Your task to perform on an android device: Open Google Maps and go to "Timeline" Image 0: 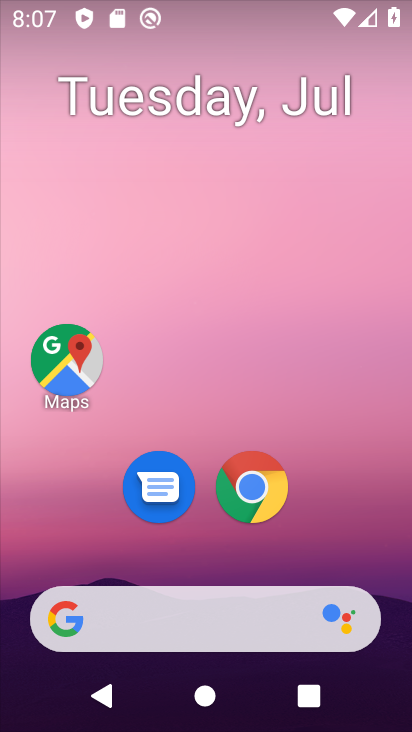
Step 0: click (60, 379)
Your task to perform on an android device: Open Google Maps and go to "Timeline" Image 1: 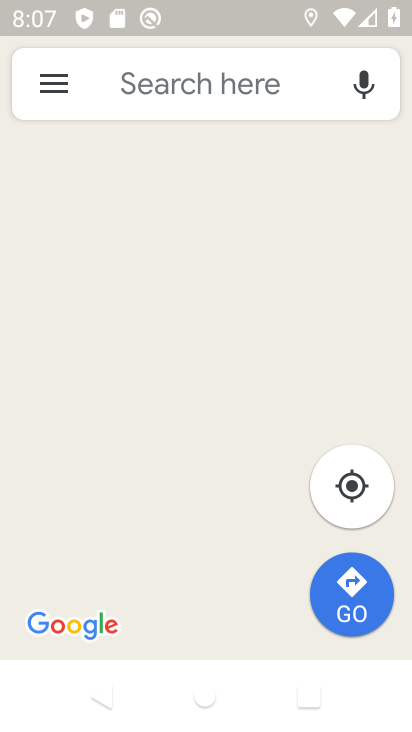
Step 1: click (40, 82)
Your task to perform on an android device: Open Google Maps and go to "Timeline" Image 2: 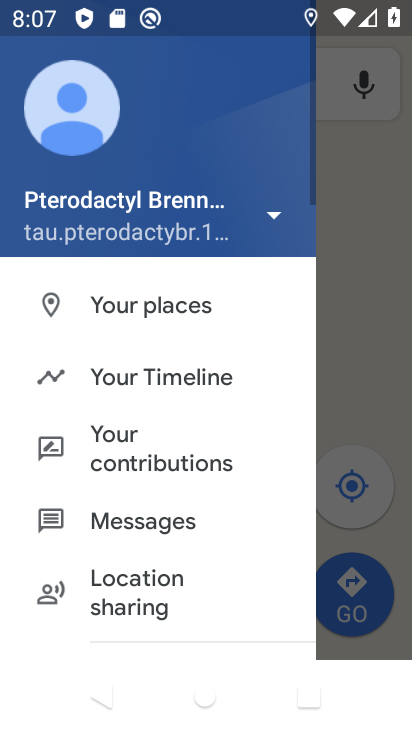
Step 2: click (218, 387)
Your task to perform on an android device: Open Google Maps and go to "Timeline" Image 3: 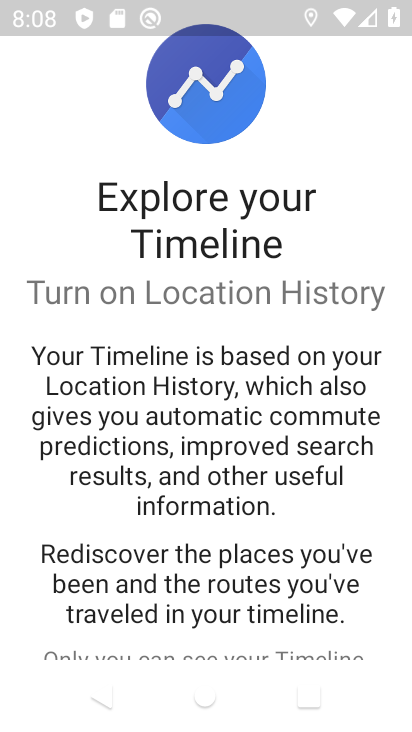
Step 3: drag from (141, 585) to (291, 96)
Your task to perform on an android device: Open Google Maps and go to "Timeline" Image 4: 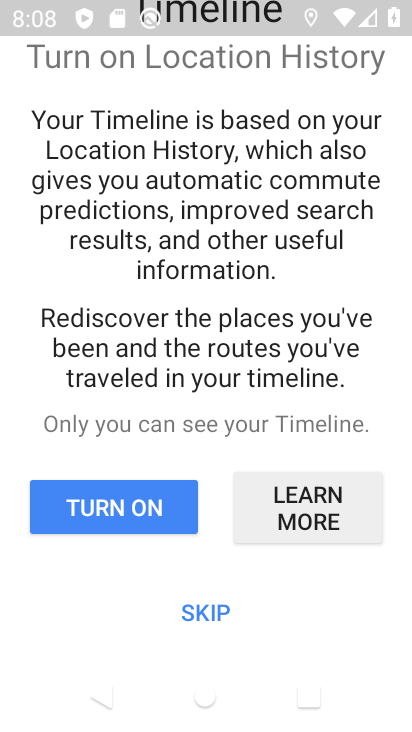
Step 4: click (203, 612)
Your task to perform on an android device: Open Google Maps and go to "Timeline" Image 5: 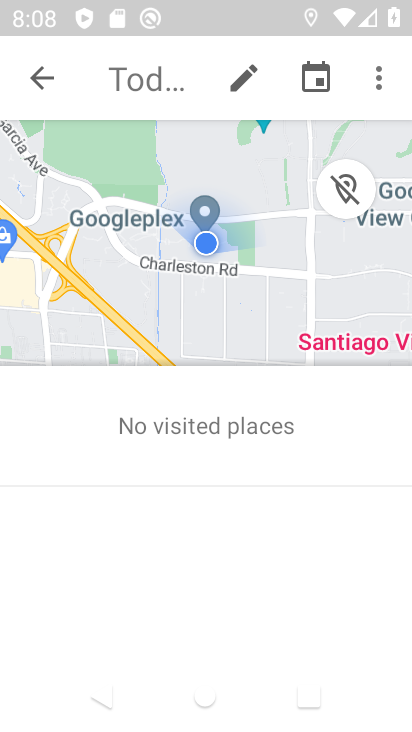
Step 5: task complete